Your task to perform on an android device: turn off airplane mode Image 0: 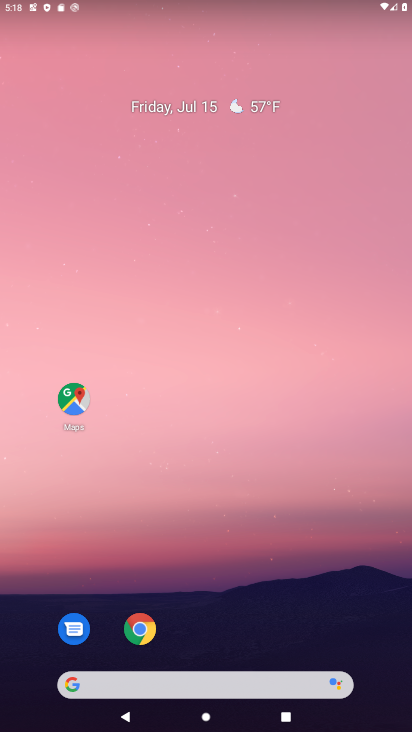
Step 0: press home button
Your task to perform on an android device: turn off airplane mode Image 1: 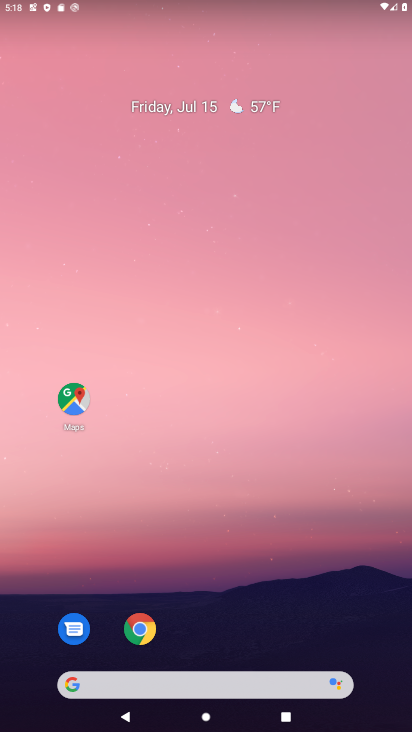
Step 1: drag from (311, 537) to (375, 3)
Your task to perform on an android device: turn off airplane mode Image 2: 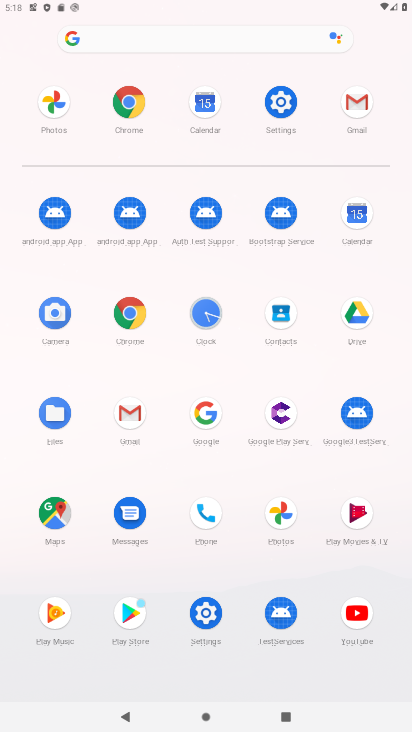
Step 2: click (289, 97)
Your task to perform on an android device: turn off airplane mode Image 3: 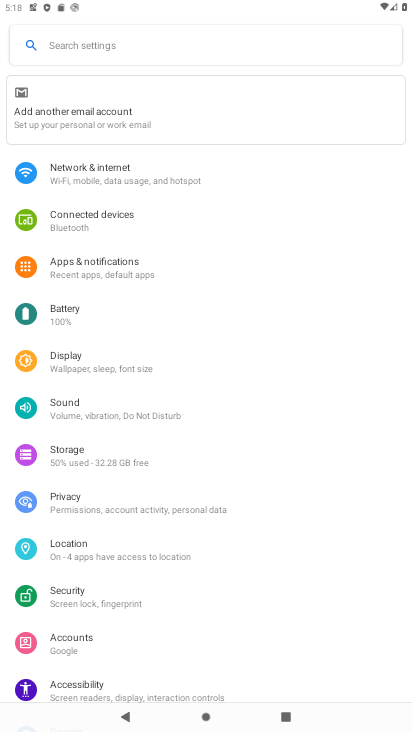
Step 3: click (133, 177)
Your task to perform on an android device: turn off airplane mode Image 4: 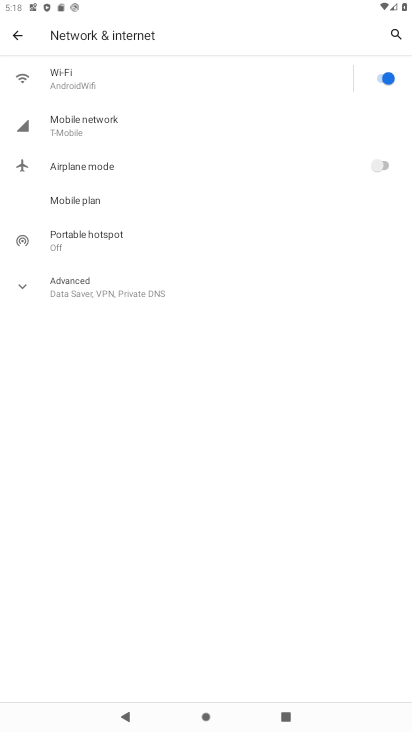
Step 4: task complete